Your task to perform on an android device: Open Youtube and go to the subscriptions tab Image 0: 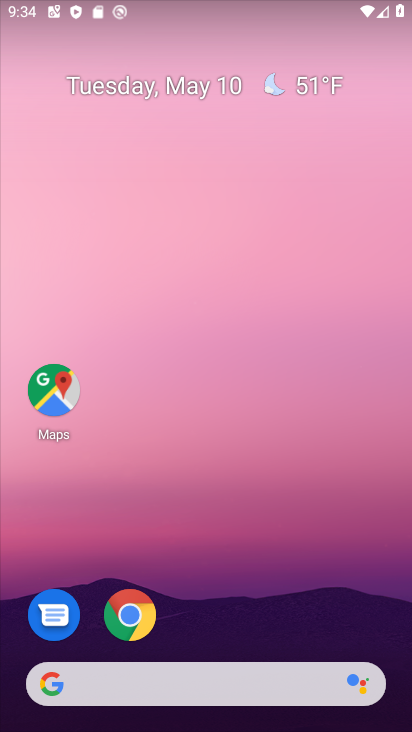
Step 0: drag from (264, 615) to (190, 54)
Your task to perform on an android device: Open Youtube and go to the subscriptions tab Image 1: 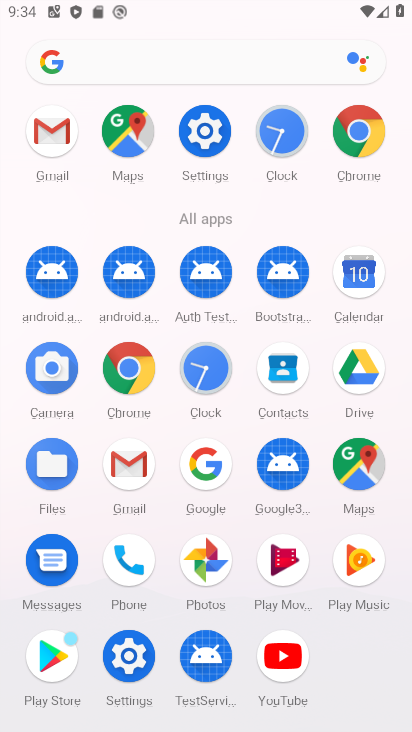
Step 1: click (300, 644)
Your task to perform on an android device: Open Youtube and go to the subscriptions tab Image 2: 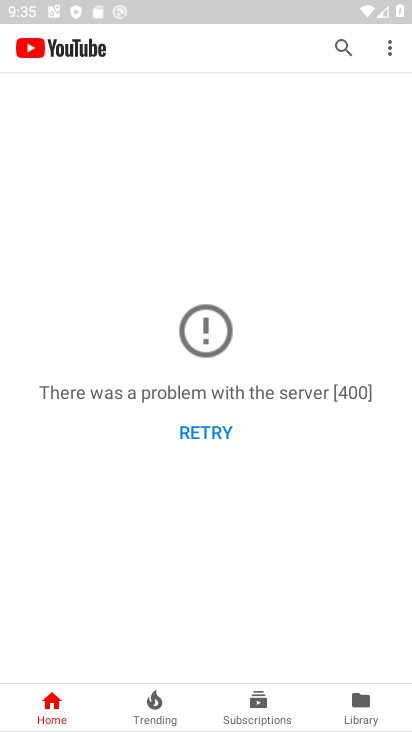
Step 2: click (266, 697)
Your task to perform on an android device: Open Youtube and go to the subscriptions tab Image 3: 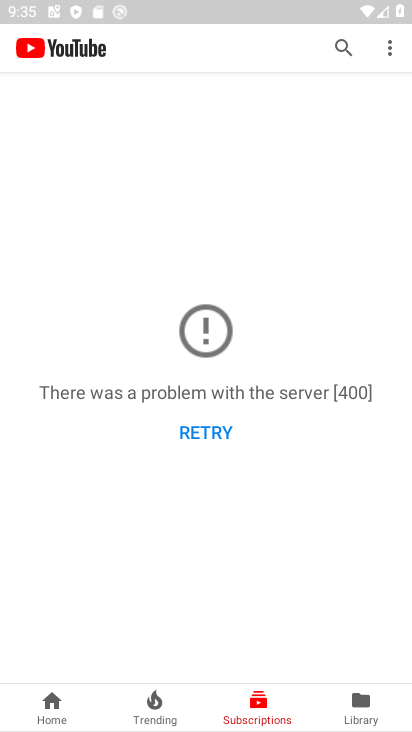
Step 3: task complete